Your task to perform on an android device: read, delete, or share a saved page in the chrome app Image 0: 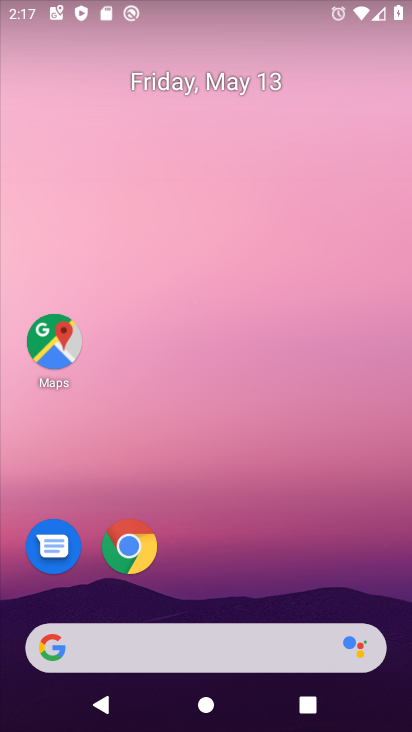
Step 0: click (134, 543)
Your task to perform on an android device: read, delete, or share a saved page in the chrome app Image 1: 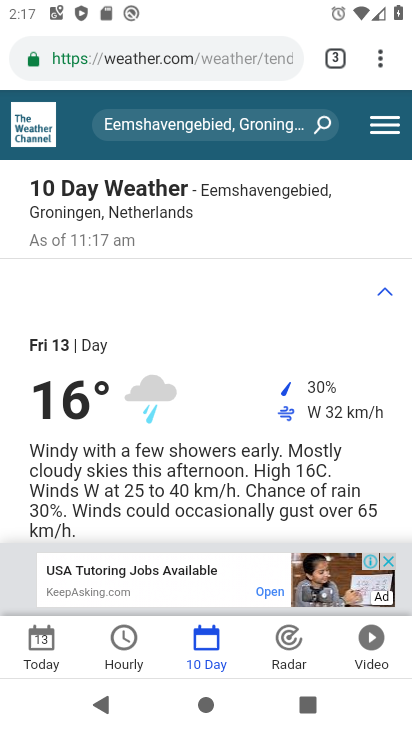
Step 1: task complete